Your task to perform on an android device: open app "Spotify: Music and Podcasts" Image 0: 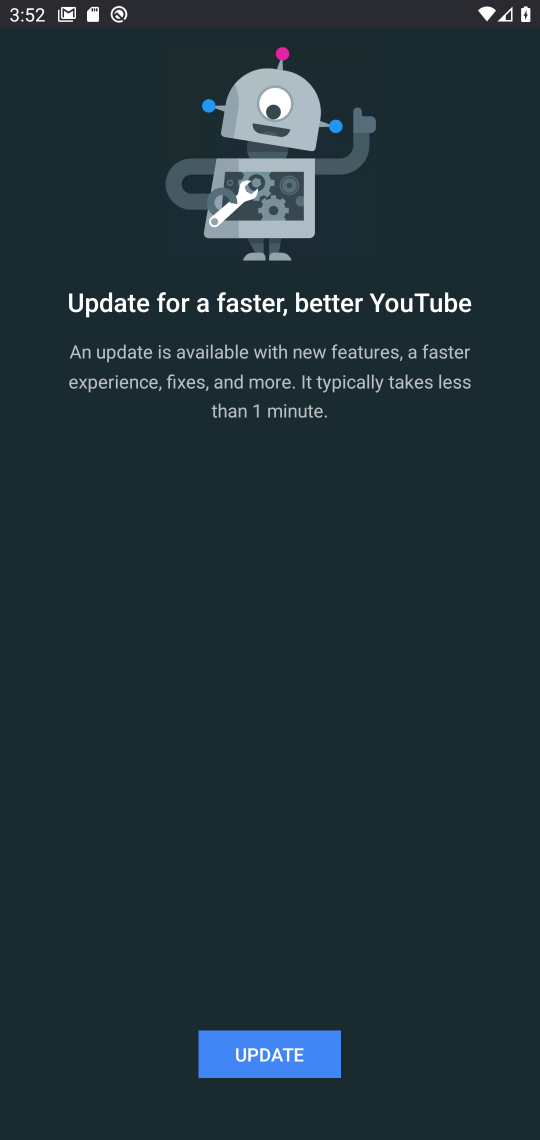
Step 0: press home button
Your task to perform on an android device: open app "Spotify: Music and Podcasts" Image 1: 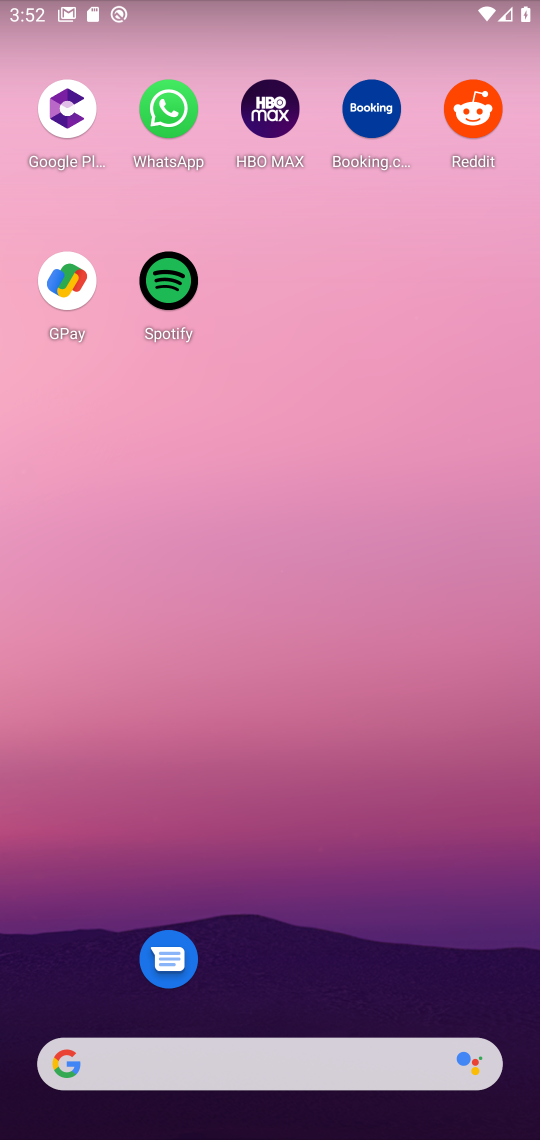
Step 1: click (182, 134)
Your task to perform on an android device: open app "Spotify: Music and Podcasts" Image 2: 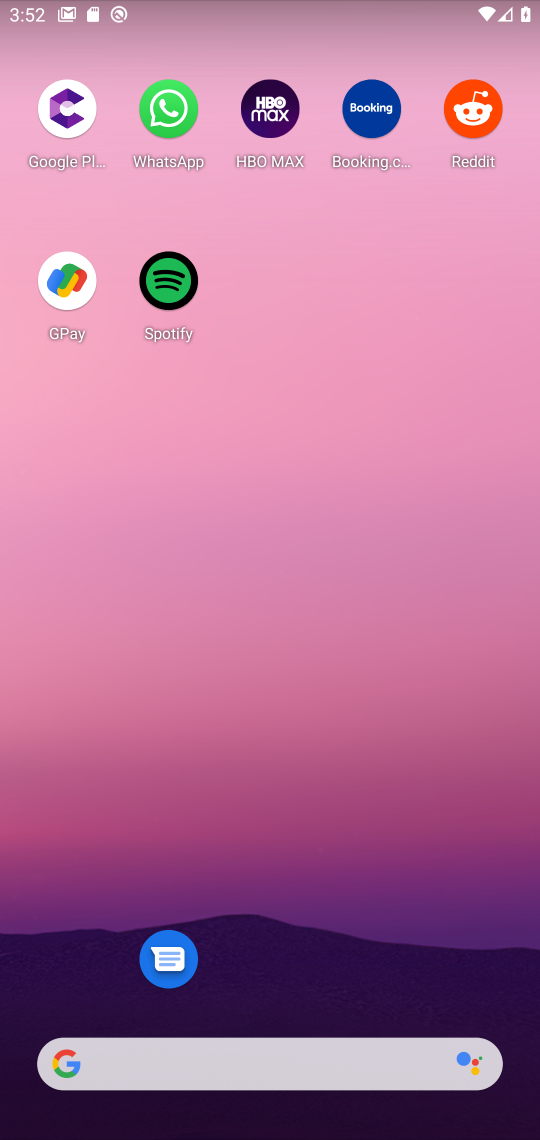
Step 2: click (168, 131)
Your task to perform on an android device: open app "Spotify: Music and Podcasts" Image 3: 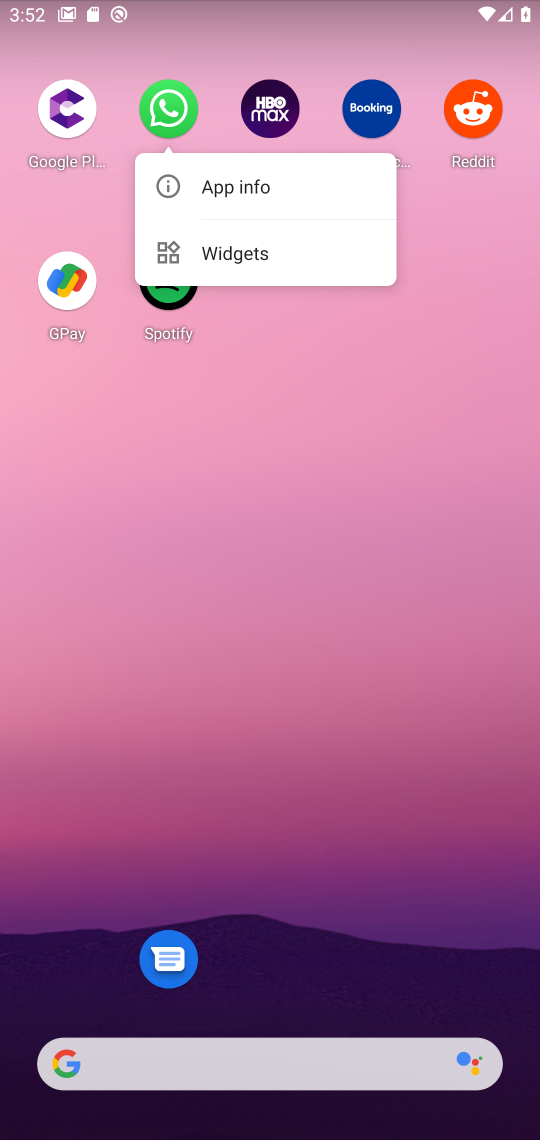
Step 3: click (392, 687)
Your task to perform on an android device: open app "Spotify: Music and Podcasts" Image 4: 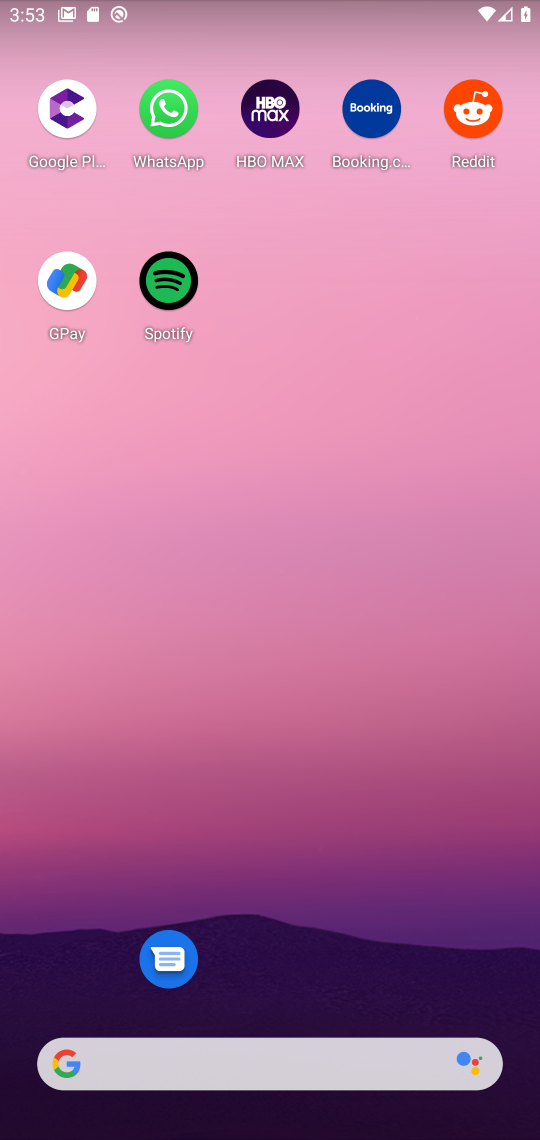
Step 4: drag from (291, 1092) to (401, 230)
Your task to perform on an android device: open app "Spotify: Music and Podcasts" Image 5: 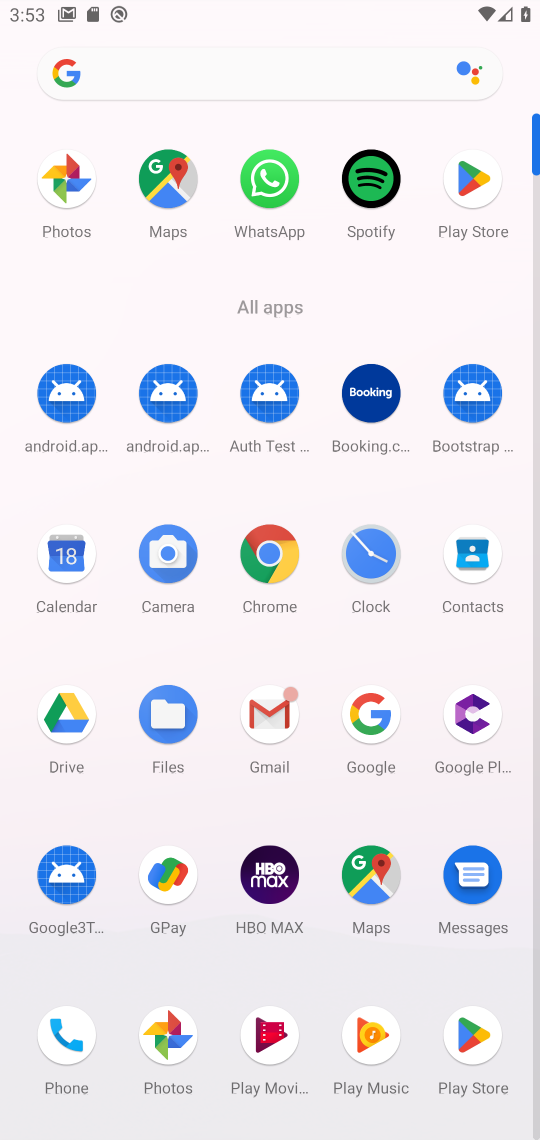
Step 5: drag from (380, 853) to (420, 451)
Your task to perform on an android device: open app "Spotify: Music and Podcasts" Image 6: 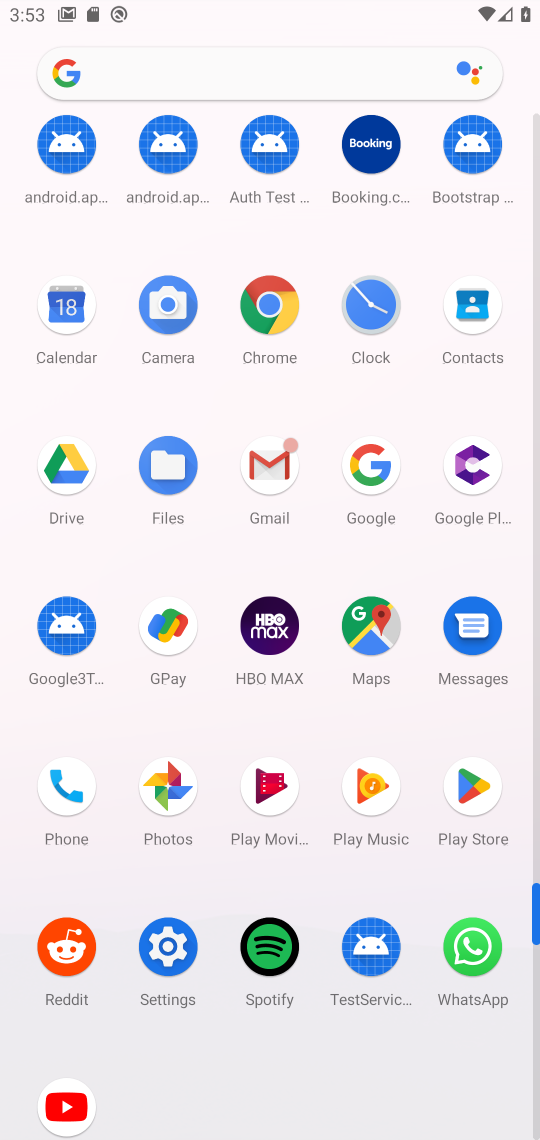
Step 6: click (278, 975)
Your task to perform on an android device: open app "Spotify: Music and Podcasts" Image 7: 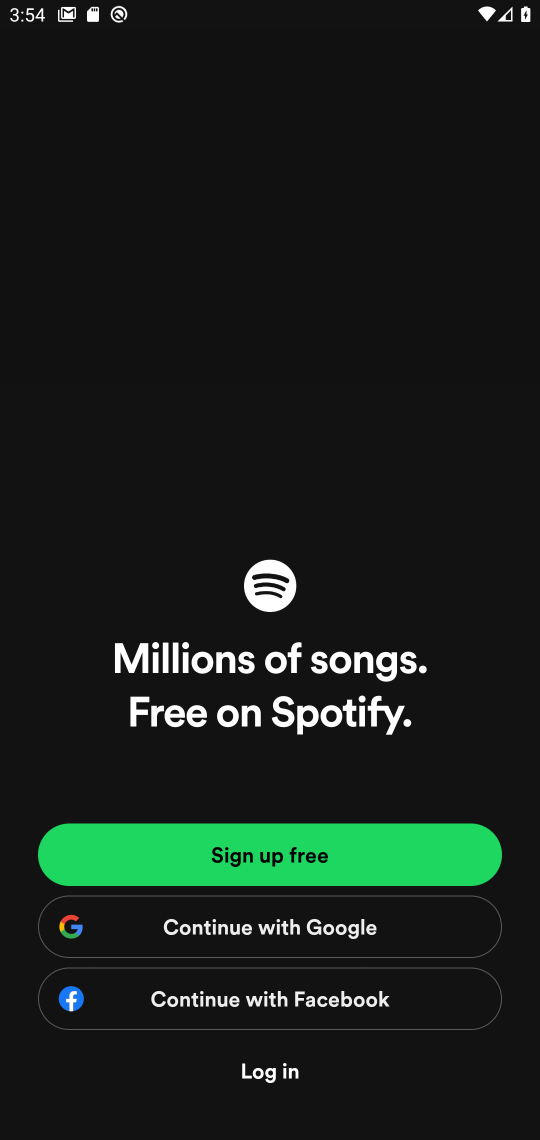
Step 7: task complete